Your task to perform on an android device: Open display settings Image 0: 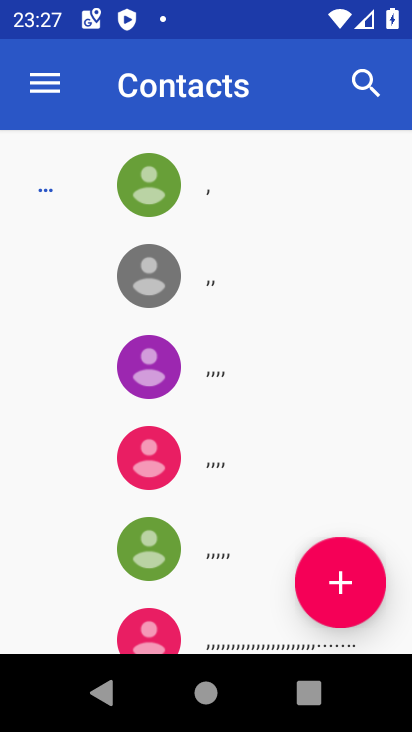
Step 0: press home button
Your task to perform on an android device: Open display settings Image 1: 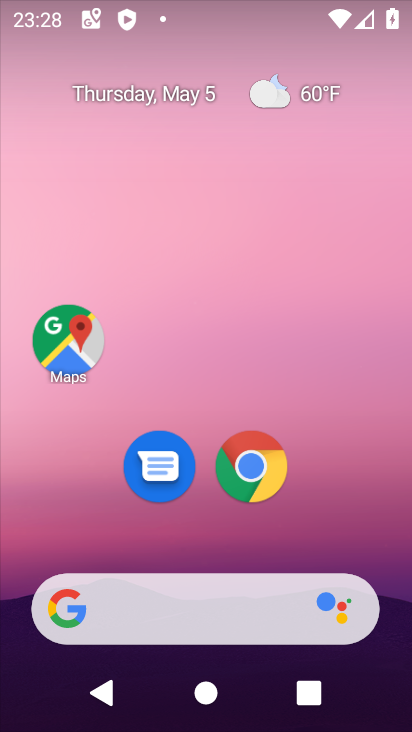
Step 1: drag from (178, 579) to (262, 147)
Your task to perform on an android device: Open display settings Image 2: 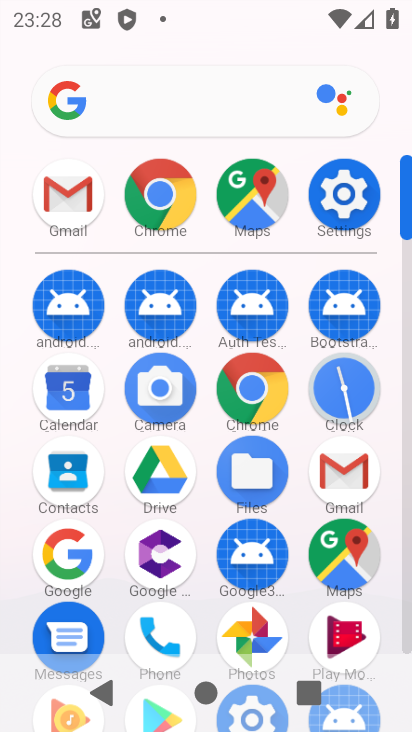
Step 2: click (348, 190)
Your task to perform on an android device: Open display settings Image 3: 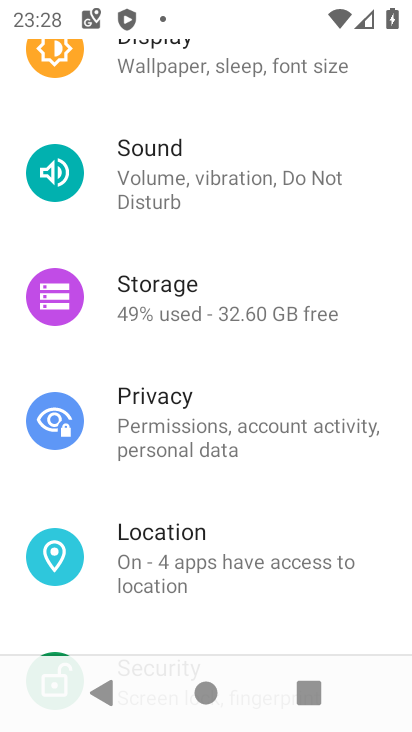
Step 3: click (232, 60)
Your task to perform on an android device: Open display settings Image 4: 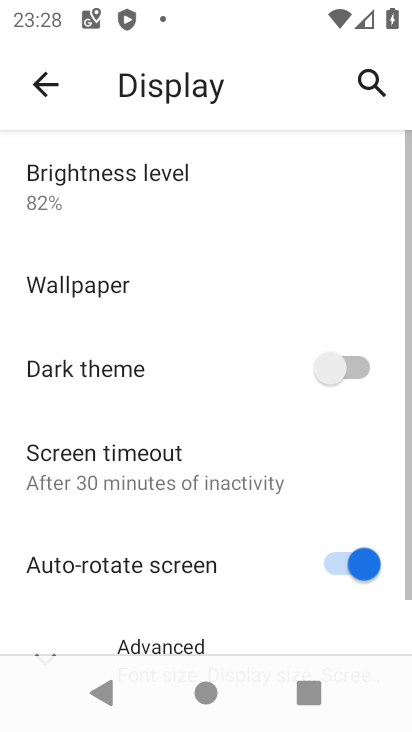
Step 4: drag from (160, 583) to (160, 249)
Your task to perform on an android device: Open display settings Image 5: 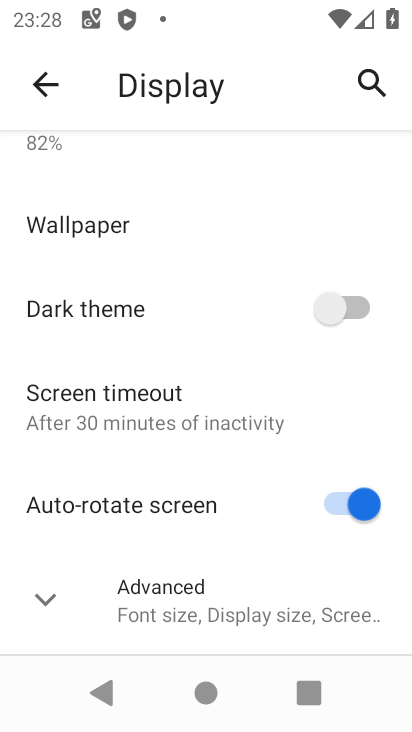
Step 5: click (141, 587)
Your task to perform on an android device: Open display settings Image 6: 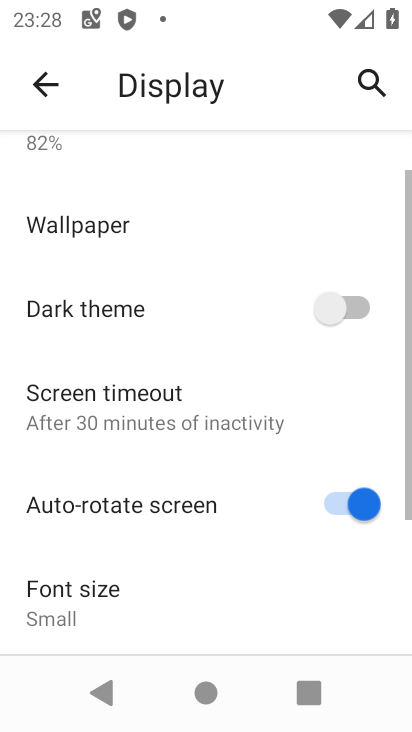
Step 6: task complete